Your task to perform on an android device: Open internet settings Image 0: 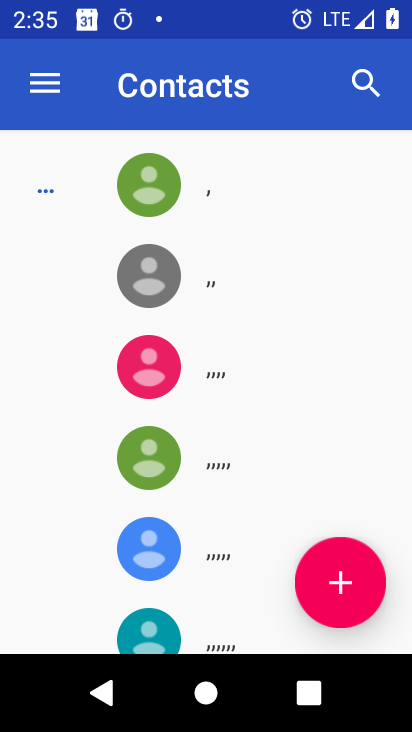
Step 0: press home button
Your task to perform on an android device: Open internet settings Image 1: 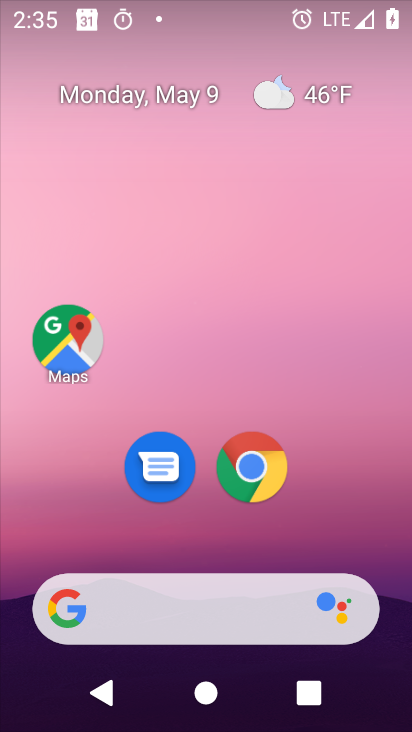
Step 1: drag from (340, 493) to (281, 104)
Your task to perform on an android device: Open internet settings Image 2: 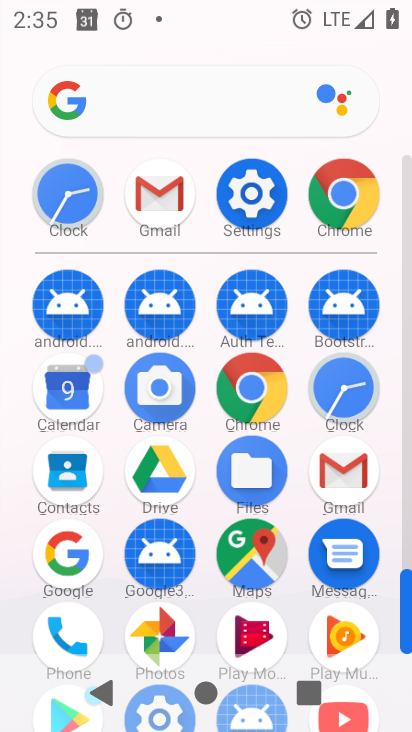
Step 2: click (233, 196)
Your task to perform on an android device: Open internet settings Image 3: 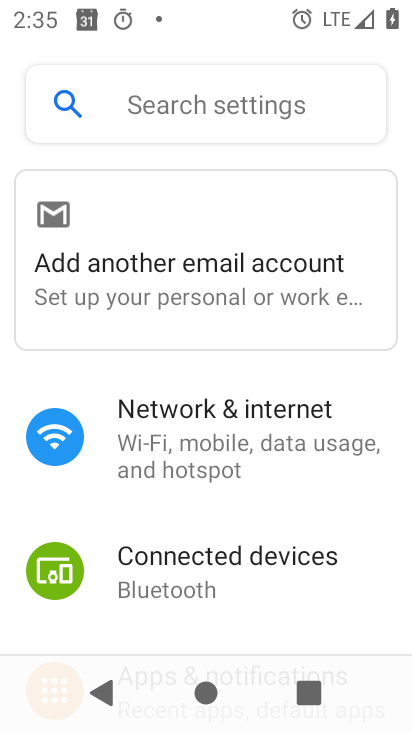
Step 3: click (236, 415)
Your task to perform on an android device: Open internet settings Image 4: 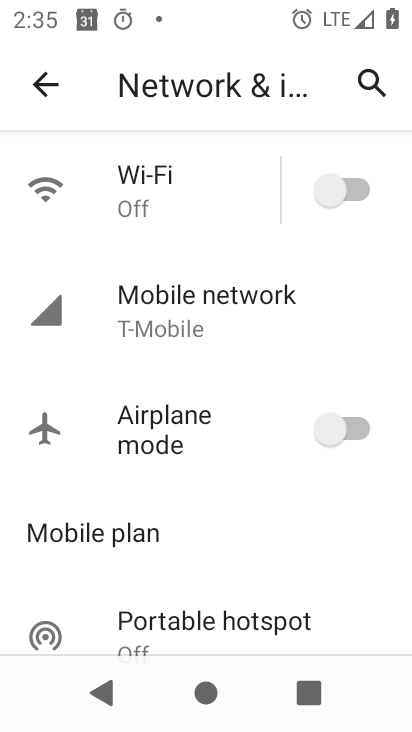
Step 4: task complete